Your task to perform on an android device: Go to display settings Image 0: 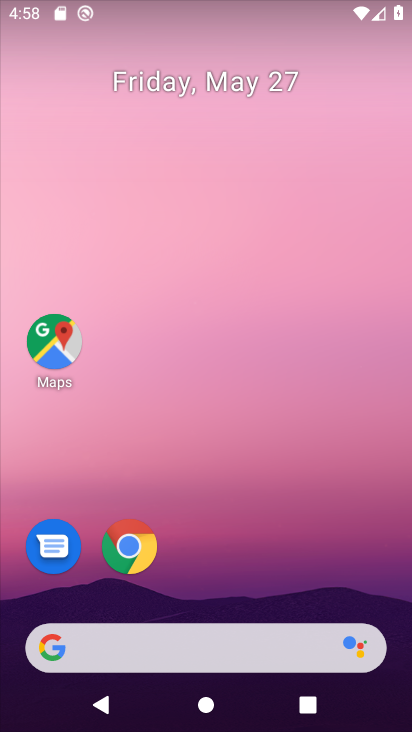
Step 0: drag from (252, 558) to (207, 35)
Your task to perform on an android device: Go to display settings Image 1: 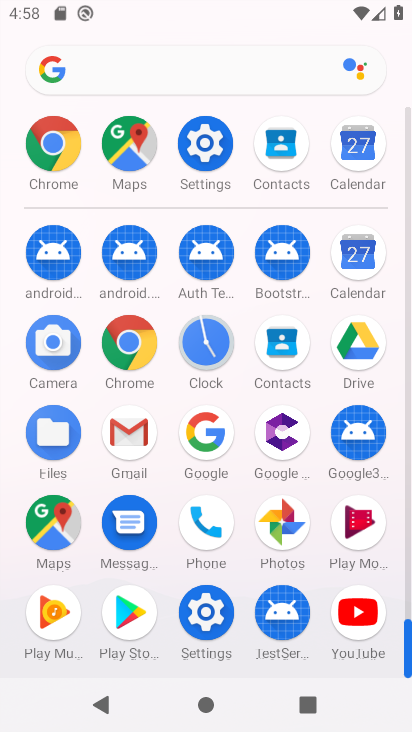
Step 1: drag from (4, 567) to (30, 239)
Your task to perform on an android device: Go to display settings Image 2: 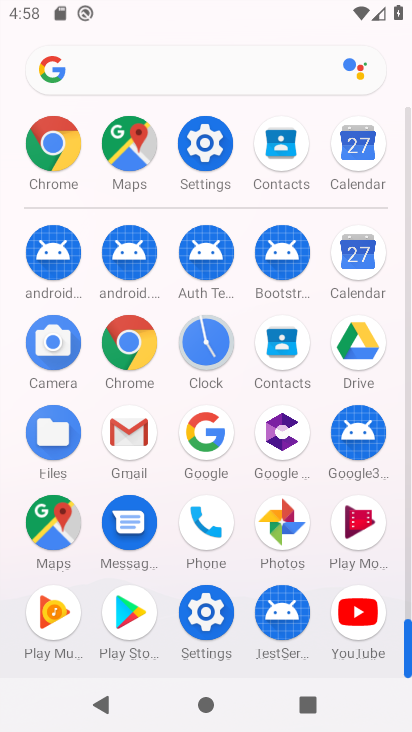
Step 2: click (203, 607)
Your task to perform on an android device: Go to display settings Image 3: 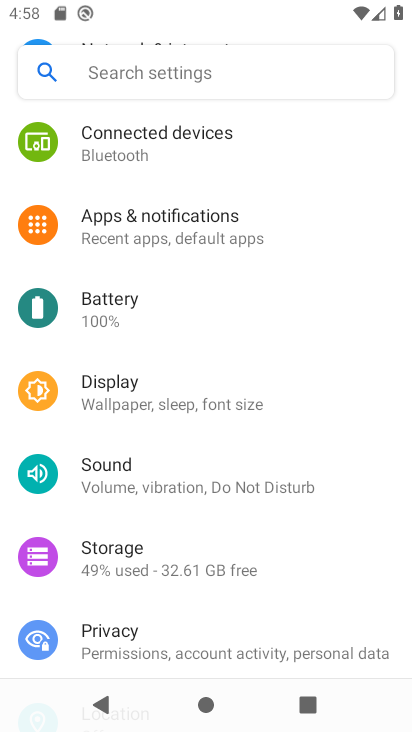
Step 3: click (177, 405)
Your task to perform on an android device: Go to display settings Image 4: 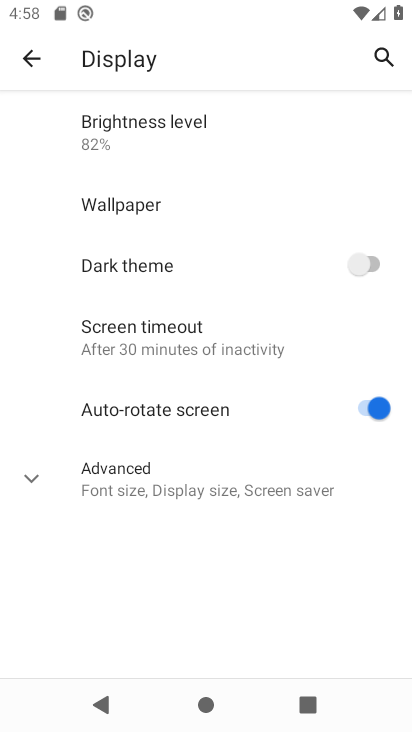
Step 4: click (39, 471)
Your task to perform on an android device: Go to display settings Image 5: 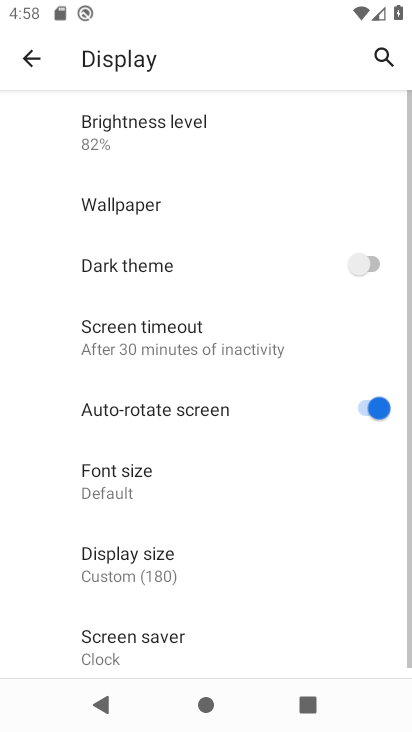
Step 5: task complete